Your task to perform on an android device: open app "Duolingo: language lessons" (install if not already installed) and enter user name: "omens@gmail.com" and password: "casks" Image 0: 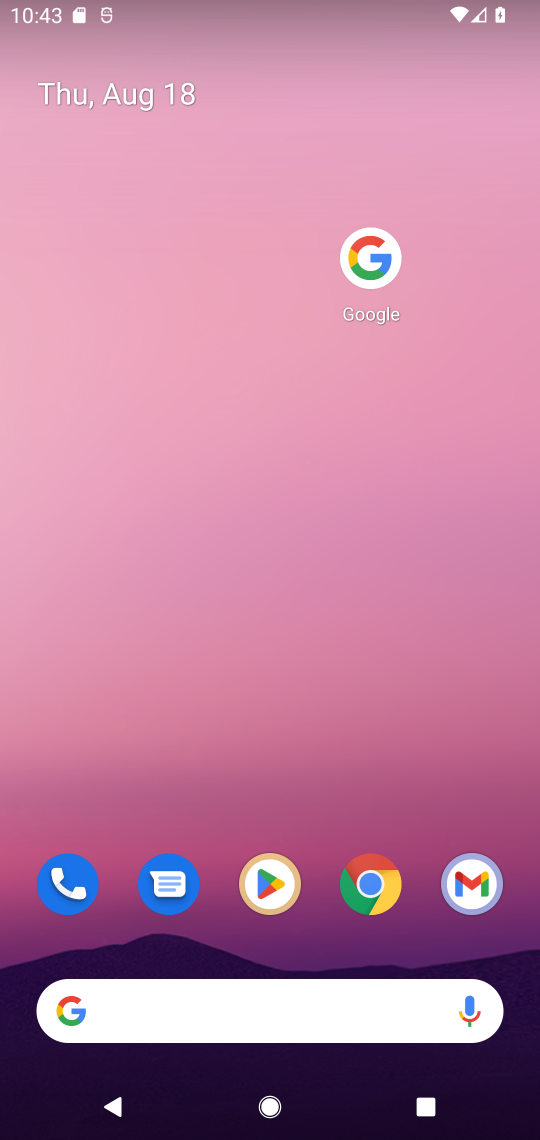
Step 0: task complete